Your task to perform on an android device: set the stopwatch Image 0: 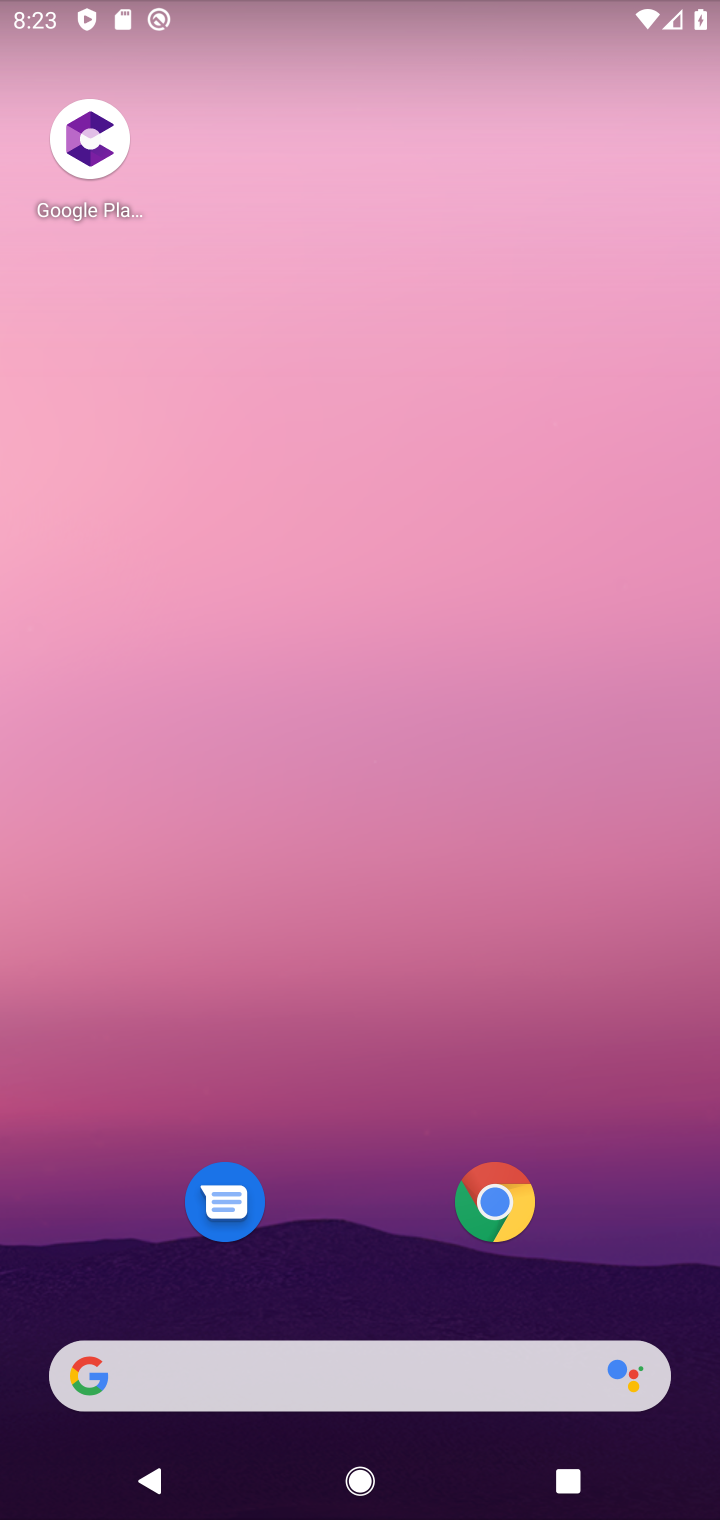
Step 0: drag from (378, 991) to (427, 182)
Your task to perform on an android device: set the stopwatch Image 1: 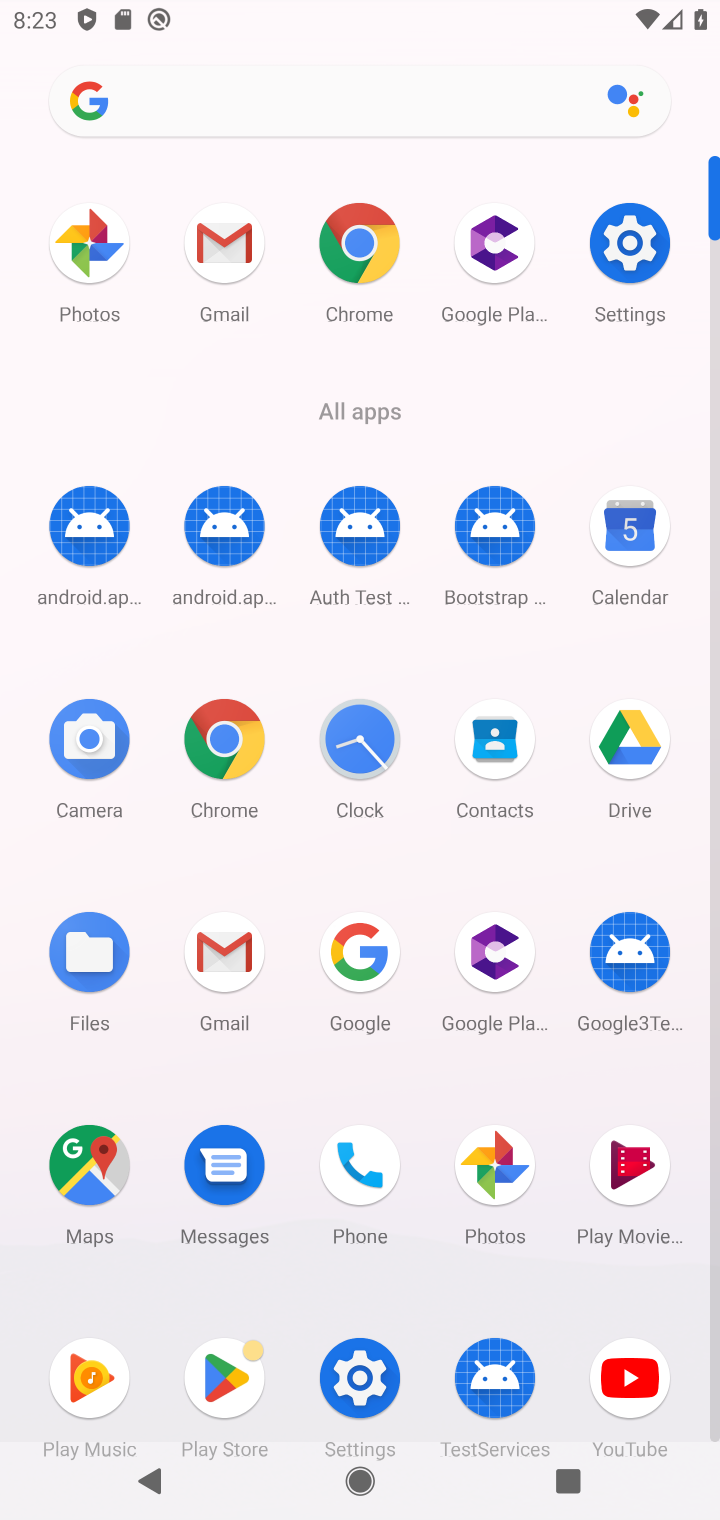
Step 1: click (359, 733)
Your task to perform on an android device: set the stopwatch Image 2: 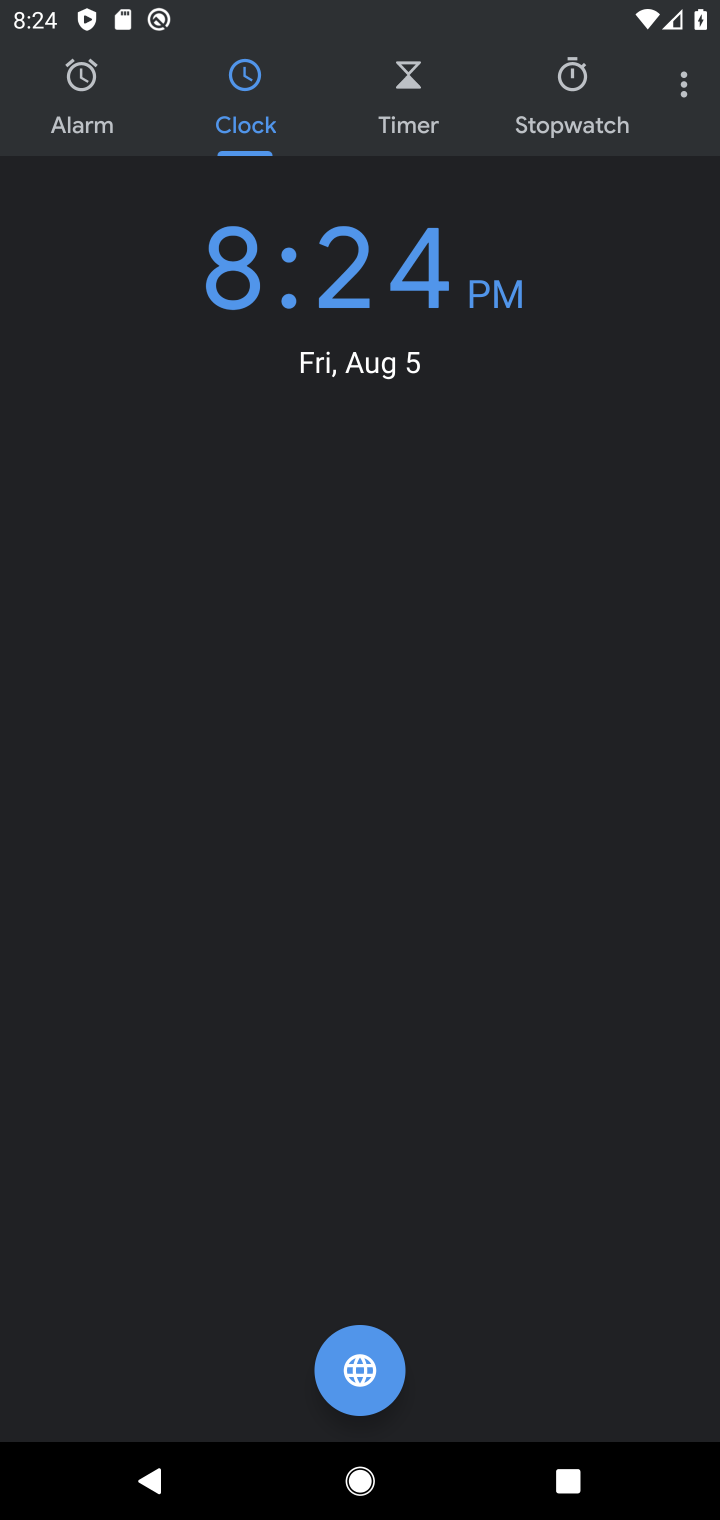
Step 2: click (518, 110)
Your task to perform on an android device: set the stopwatch Image 3: 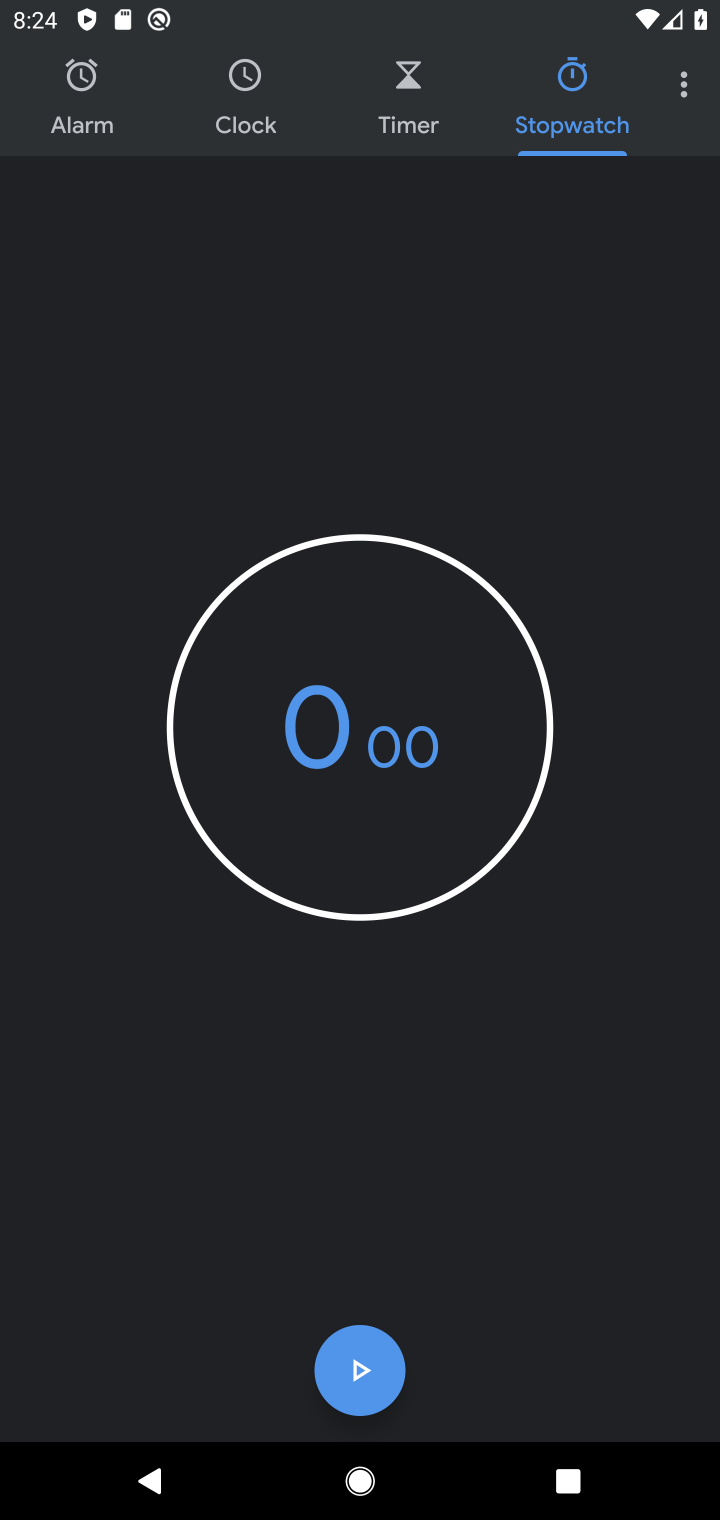
Step 3: click (349, 1361)
Your task to perform on an android device: set the stopwatch Image 4: 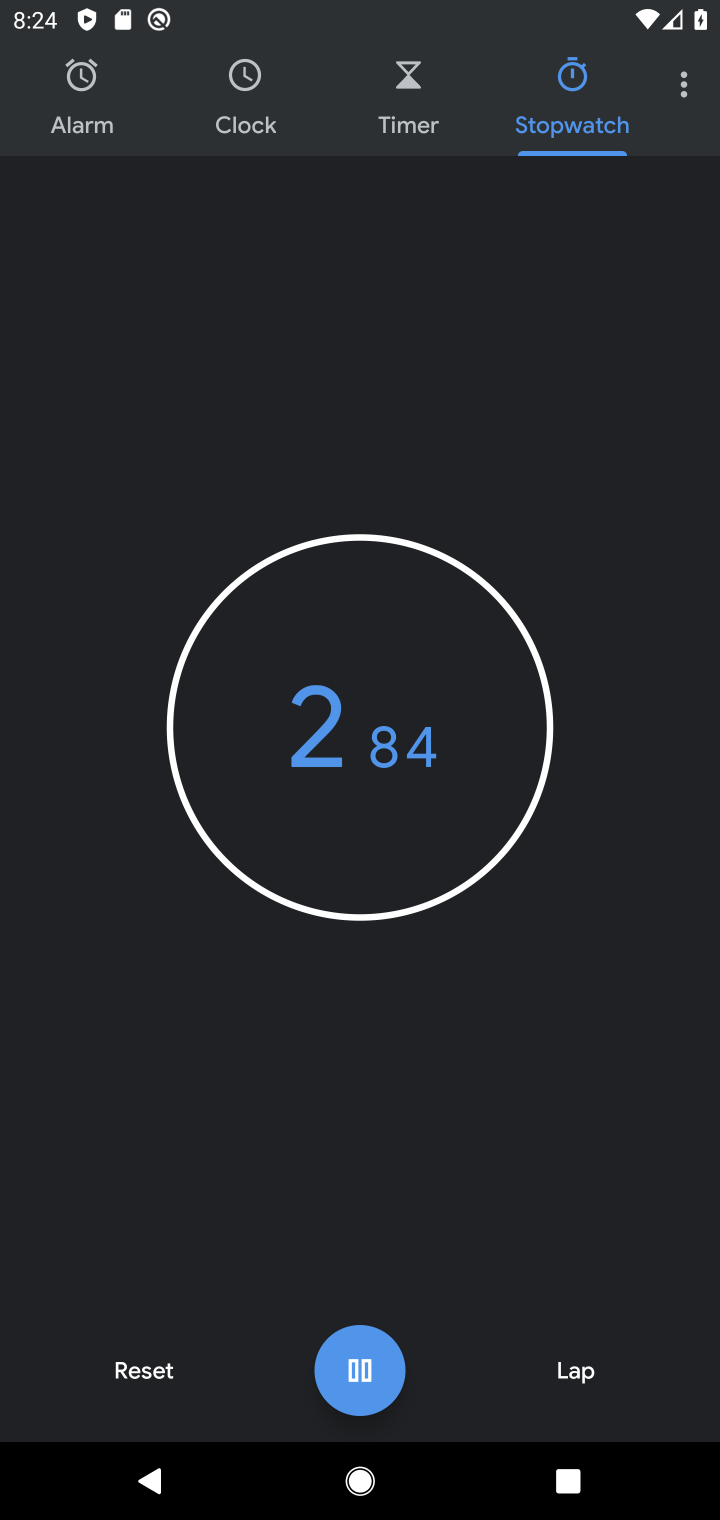
Step 4: task complete